Your task to perform on an android device: create a new album in the google photos Image 0: 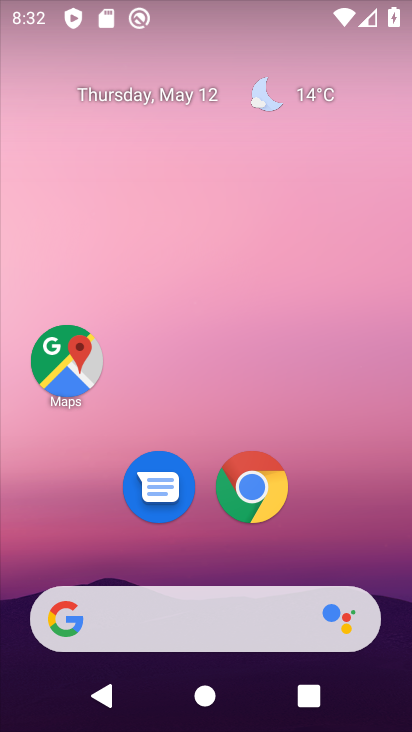
Step 0: drag from (0, 0) to (263, 179)
Your task to perform on an android device: create a new album in the google photos Image 1: 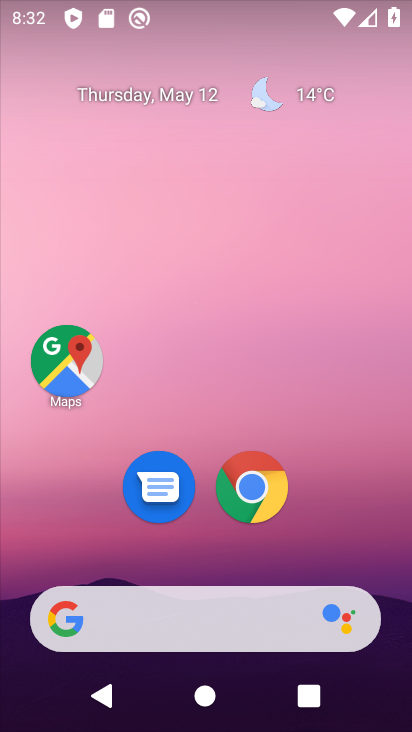
Step 1: drag from (26, 647) to (314, 230)
Your task to perform on an android device: create a new album in the google photos Image 2: 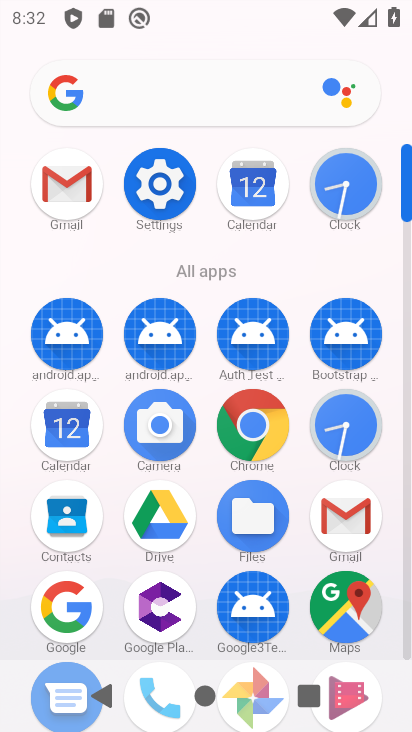
Step 2: drag from (24, 604) to (268, 211)
Your task to perform on an android device: create a new album in the google photos Image 3: 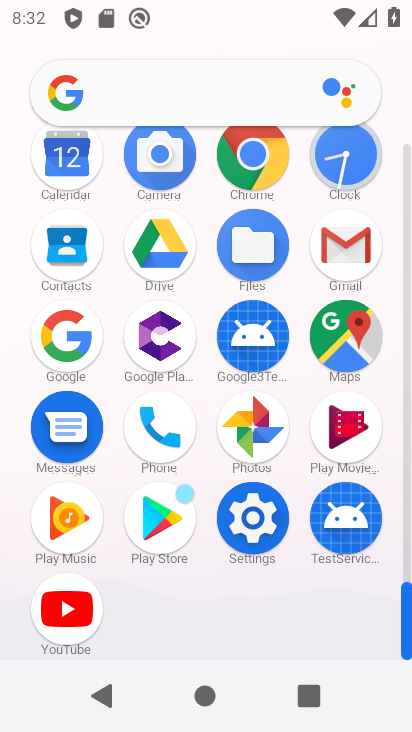
Step 3: click (237, 434)
Your task to perform on an android device: create a new album in the google photos Image 4: 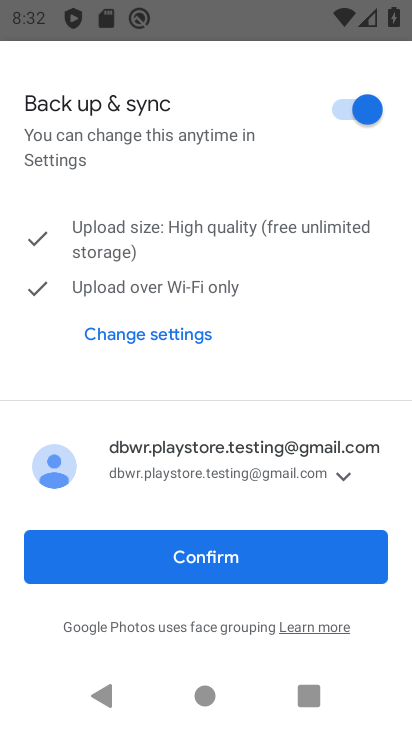
Step 4: click (216, 561)
Your task to perform on an android device: create a new album in the google photos Image 5: 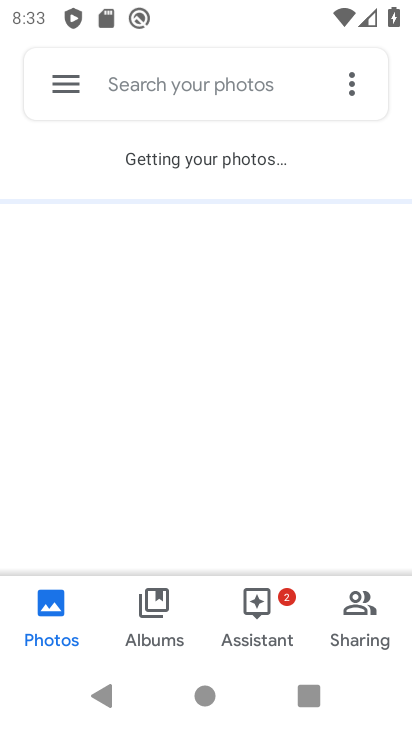
Step 5: click (157, 599)
Your task to perform on an android device: create a new album in the google photos Image 6: 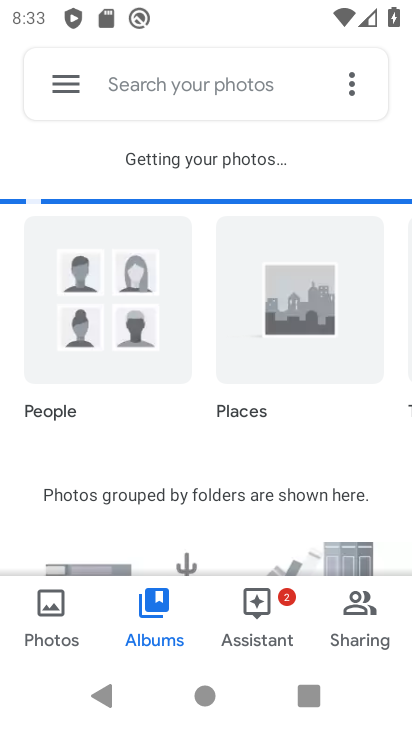
Step 6: click (353, 85)
Your task to perform on an android device: create a new album in the google photos Image 7: 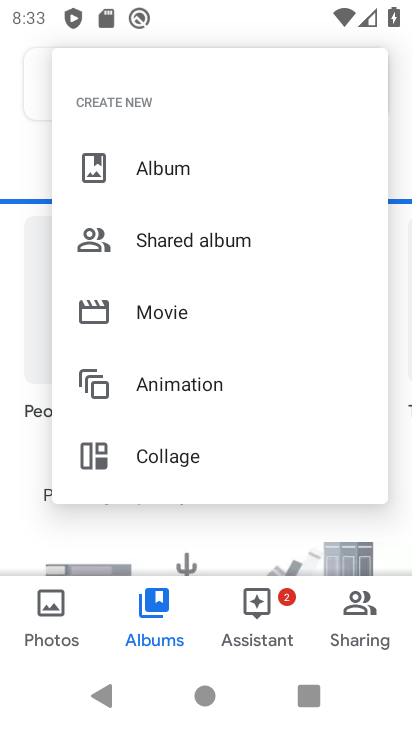
Step 7: click (195, 165)
Your task to perform on an android device: create a new album in the google photos Image 8: 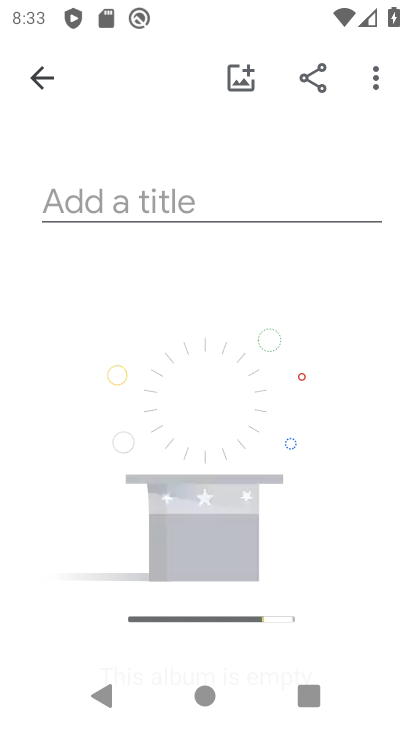
Step 8: click (285, 191)
Your task to perform on an android device: create a new album in the google photos Image 9: 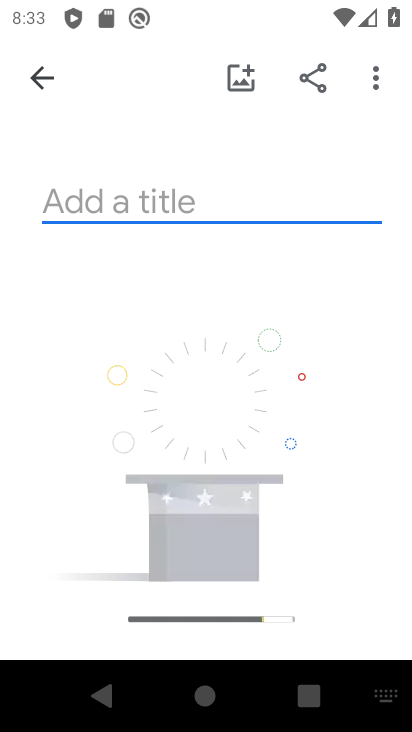
Step 9: type "hgfrtyu"
Your task to perform on an android device: create a new album in the google photos Image 10: 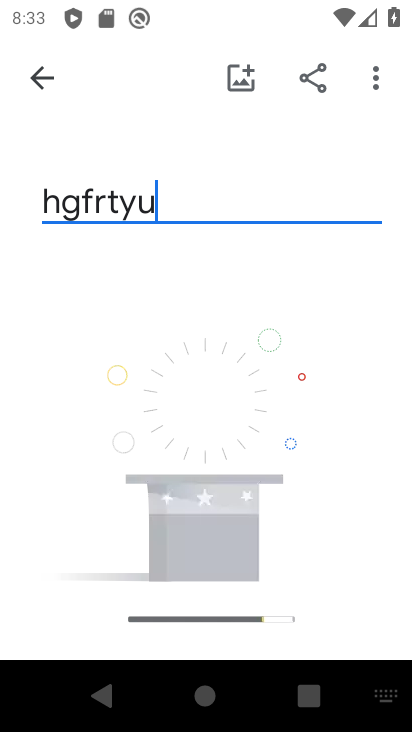
Step 10: type ""
Your task to perform on an android device: create a new album in the google photos Image 11: 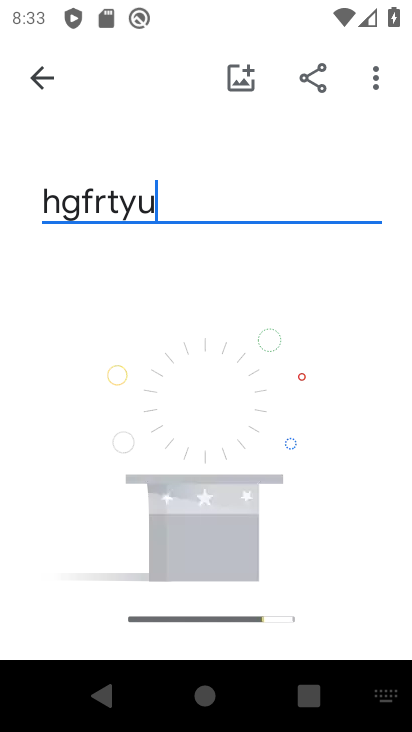
Step 11: click (254, 84)
Your task to perform on an android device: create a new album in the google photos Image 12: 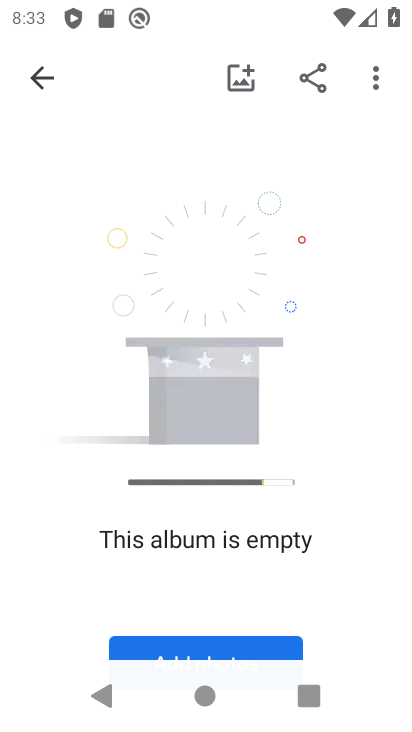
Step 12: click (254, 84)
Your task to perform on an android device: create a new album in the google photos Image 13: 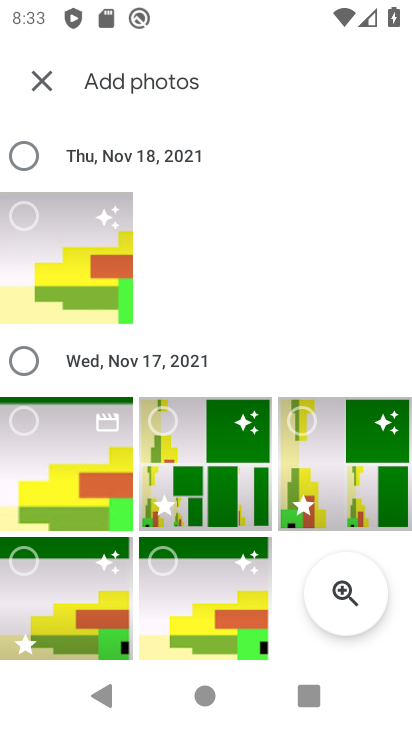
Step 13: click (88, 214)
Your task to perform on an android device: create a new album in the google photos Image 14: 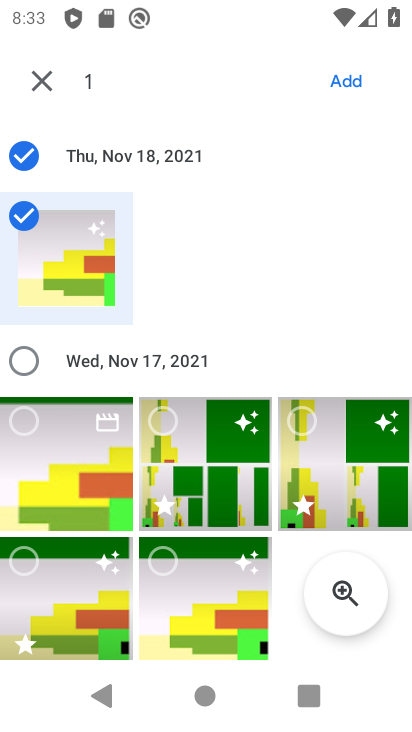
Step 14: click (361, 80)
Your task to perform on an android device: create a new album in the google photos Image 15: 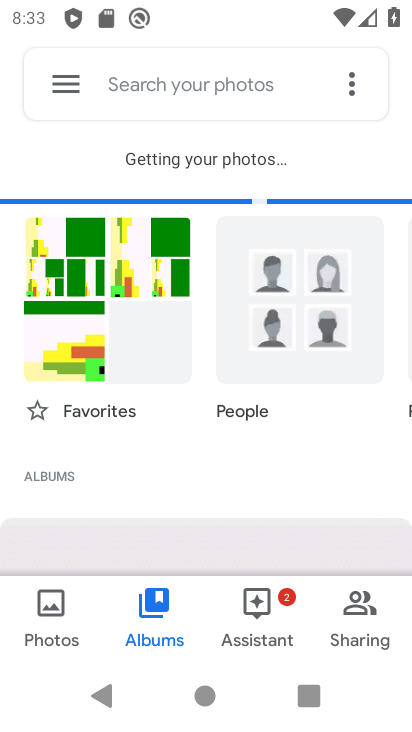
Step 15: task complete